Your task to perform on an android device: move a message to another label in the gmail app Image 0: 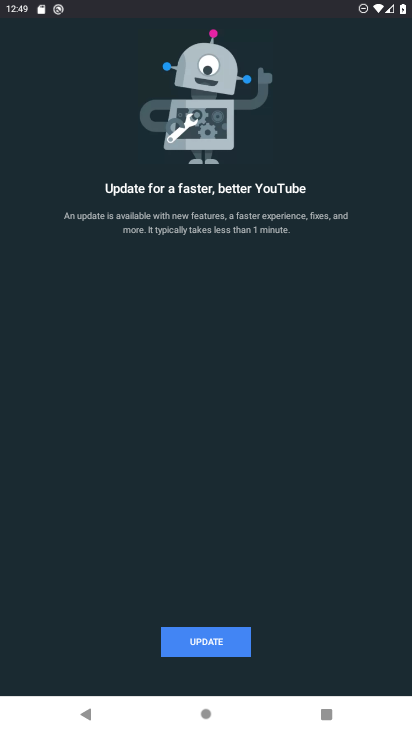
Step 0: press home button
Your task to perform on an android device: move a message to another label in the gmail app Image 1: 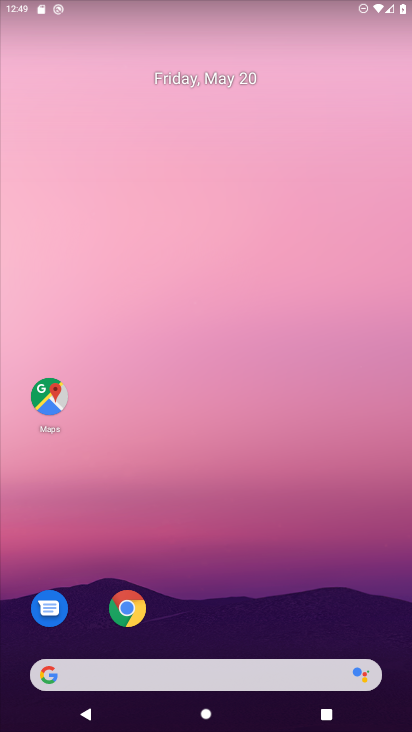
Step 1: drag from (311, 581) to (238, 95)
Your task to perform on an android device: move a message to another label in the gmail app Image 2: 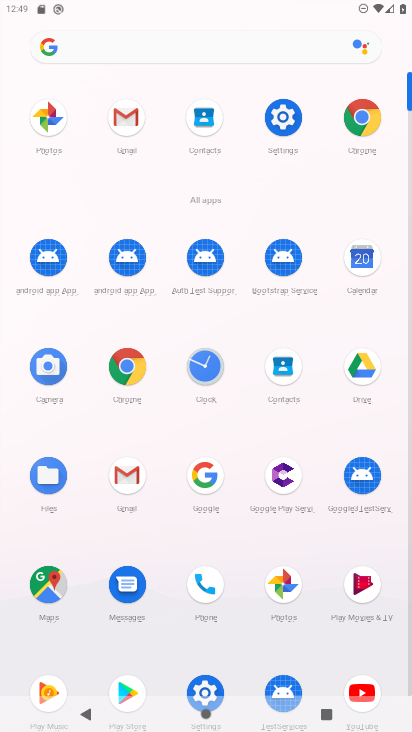
Step 2: click (125, 140)
Your task to perform on an android device: move a message to another label in the gmail app Image 3: 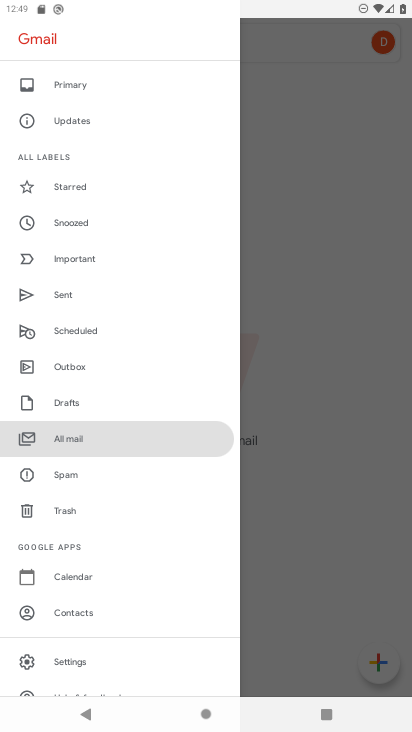
Step 3: task complete